Your task to perform on an android device: stop showing notifications on the lock screen Image 0: 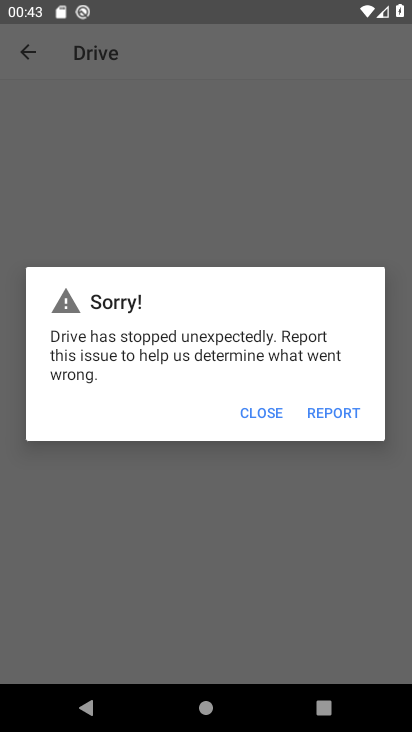
Step 0: press back button
Your task to perform on an android device: stop showing notifications on the lock screen Image 1: 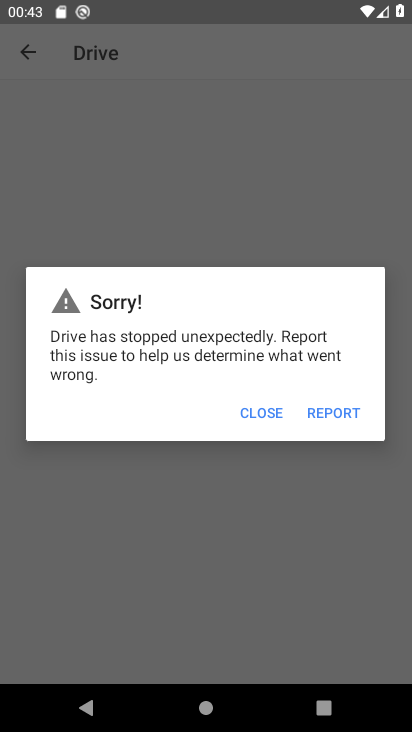
Step 1: press home button
Your task to perform on an android device: stop showing notifications on the lock screen Image 2: 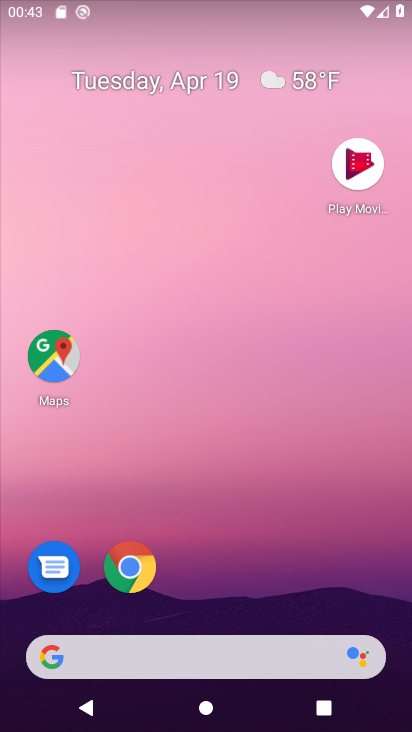
Step 2: drag from (195, 552) to (227, 151)
Your task to perform on an android device: stop showing notifications on the lock screen Image 3: 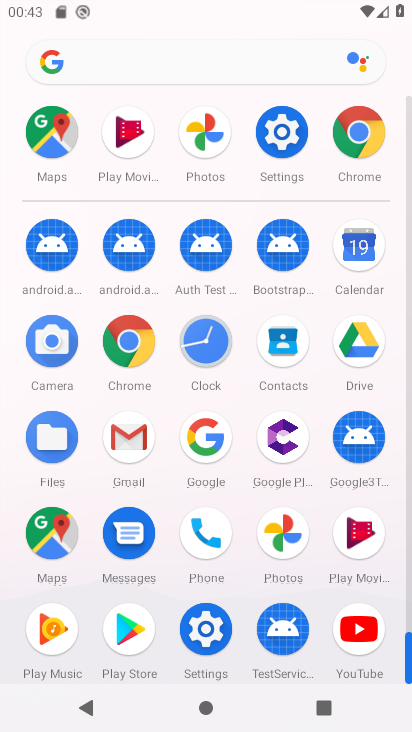
Step 3: click (291, 126)
Your task to perform on an android device: stop showing notifications on the lock screen Image 4: 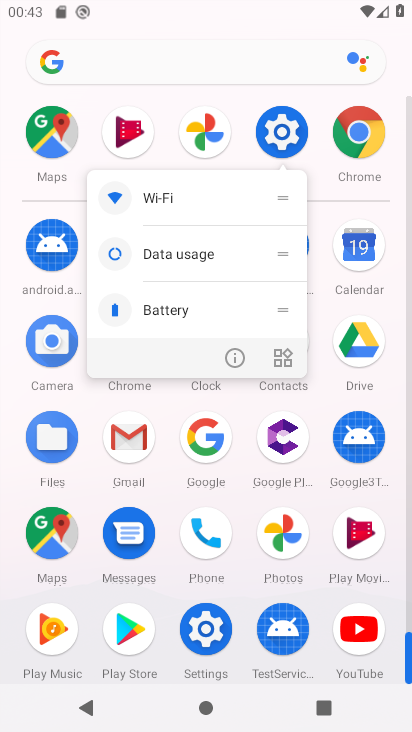
Step 4: click (234, 361)
Your task to perform on an android device: stop showing notifications on the lock screen Image 5: 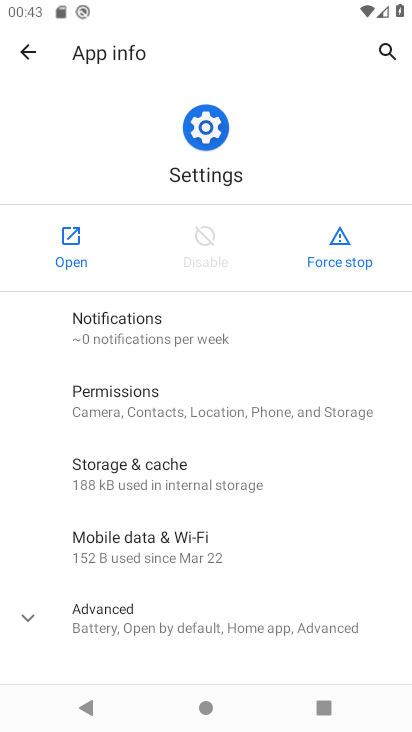
Step 5: click (71, 241)
Your task to perform on an android device: stop showing notifications on the lock screen Image 6: 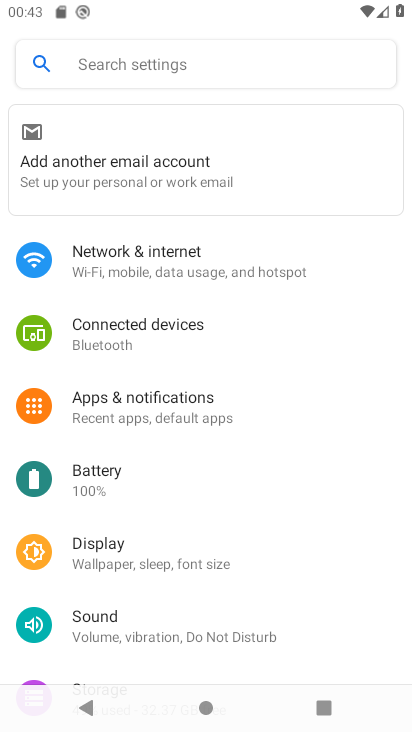
Step 6: drag from (189, 570) to (272, 147)
Your task to perform on an android device: stop showing notifications on the lock screen Image 7: 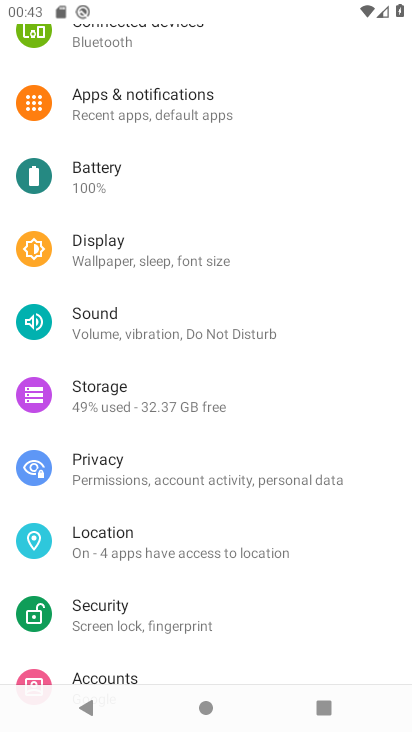
Step 7: click (194, 113)
Your task to perform on an android device: stop showing notifications on the lock screen Image 8: 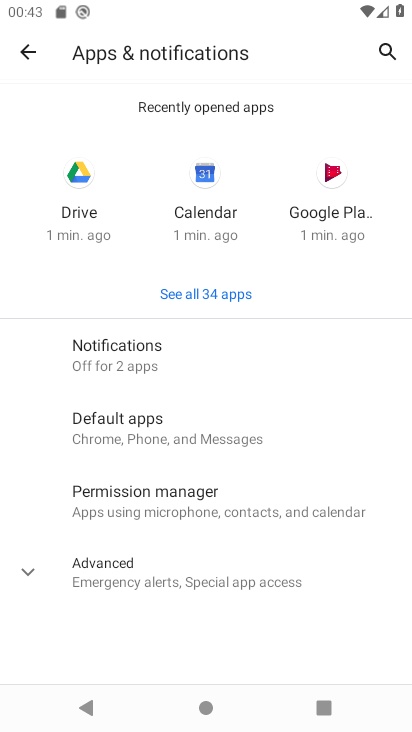
Step 8: click (176, 350)
Your task to perform on an android device: stop showing notifications on the lock screen Image 9: 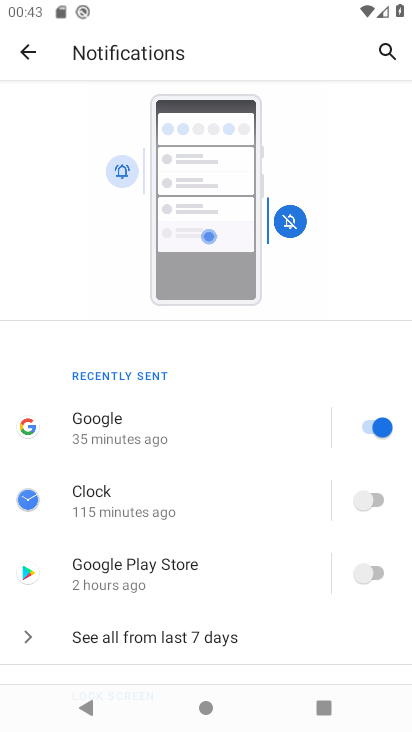
Step 9: drag from (230, 595) to (266, 253)
Your task to perform on an android device: stop showing notifications on the lock screen Image 10: 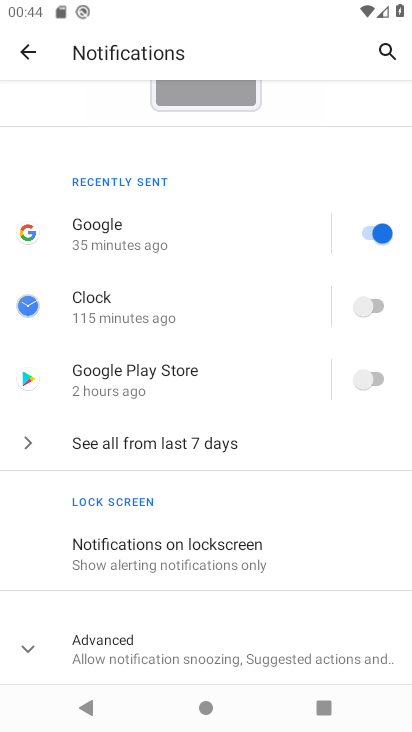
Step 10: click (270, 543)
Your task to perform on an android device: stop showing notifications on the lock screen Image 11: 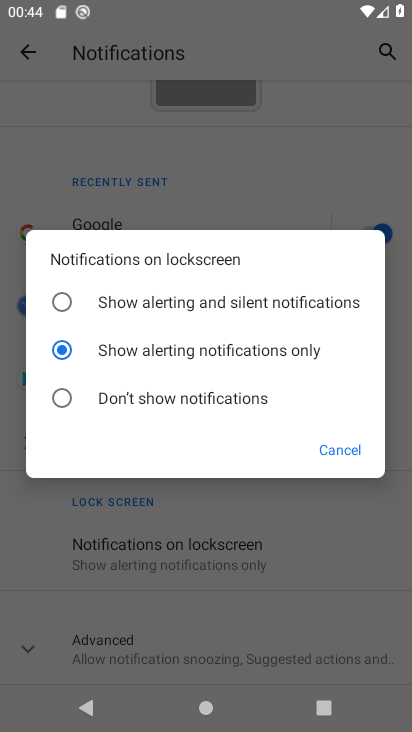
Step 11: task complete